Your task to perform on an android device: toggle translation in the chrome app Image 0: 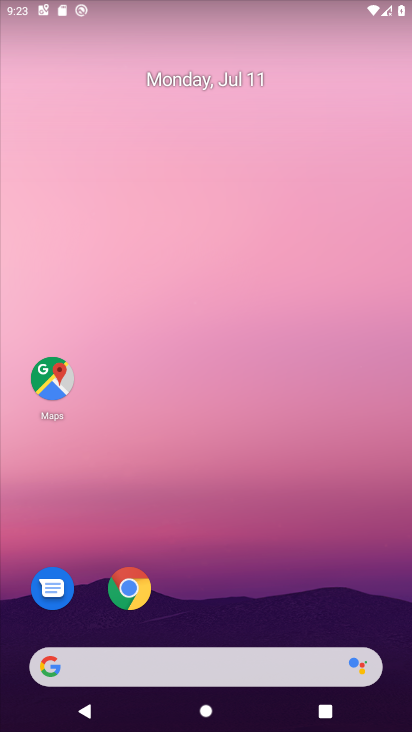
Step 0: drag from (231, 631) to (234, 277)
Your task to perform on an android device: toggle translation in the chrome app Image 1: 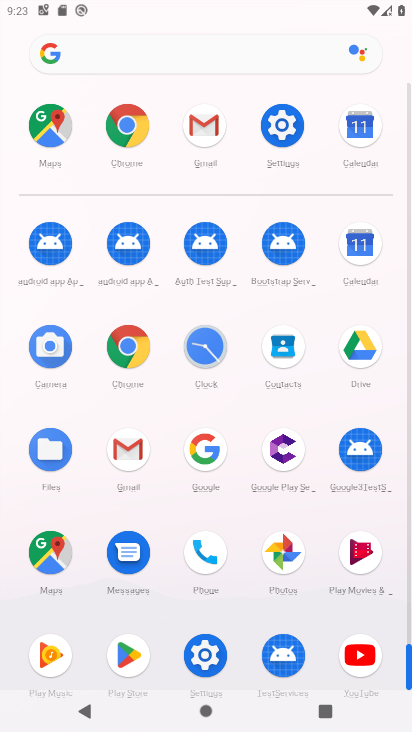
Step 1: click (131, 336)
Your task to perform on an android device: toggle translation in the chrome app Image 2: 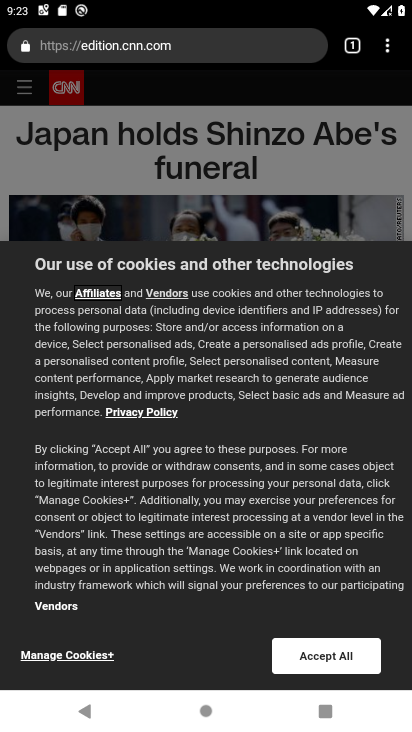
Step 2: click (387, 44)
Your task to perform on an android device: toggle translation in the chrome app Image 3: 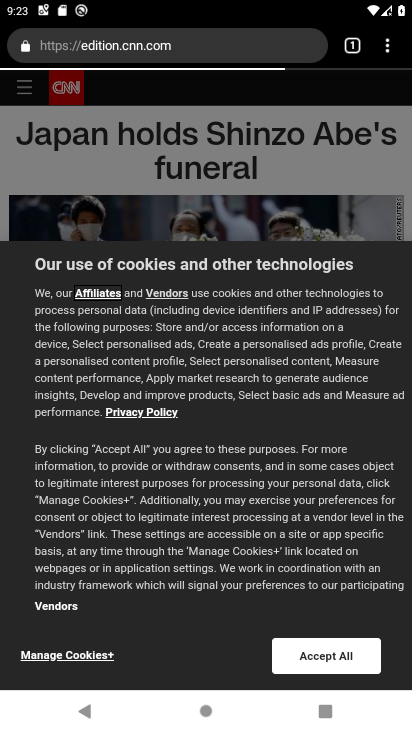
Step 3: click (387, 50)
Your task to perform on an android device: toggle translation in the chrome app Image 4: 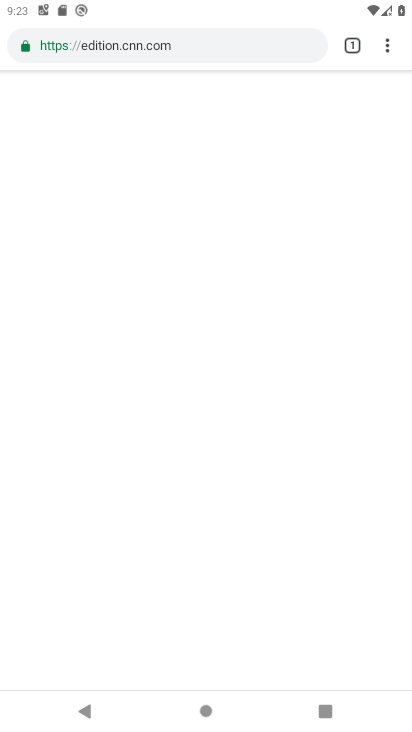
Step 4: click (387, 50)
Your task to perform on an android device: toggle translation in the chrome app Image 5: 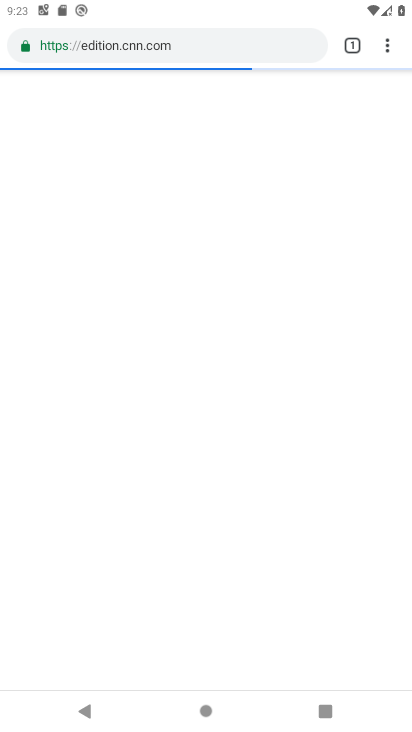
Step 5: click (387, 48)
Your task to perform on an android device: toggle translation in the chrome app Image 6: 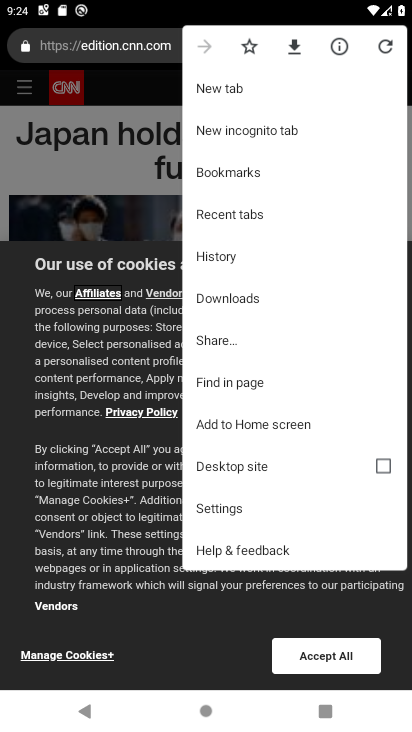
Step 6: click (250, 505)
Your task to perform on an android device: toggle translation in the chrome app Image 7: 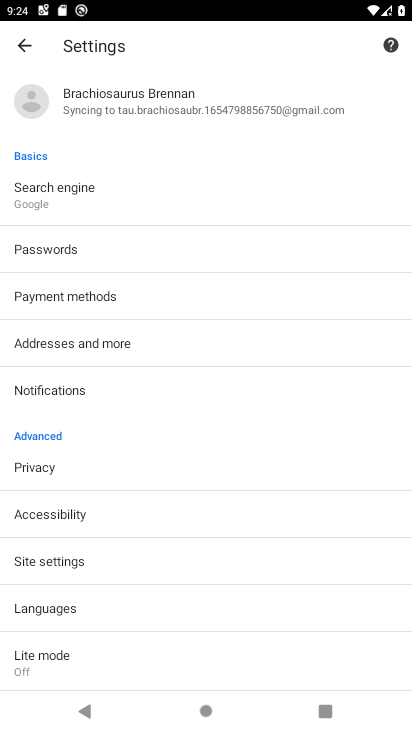
Step 7: click (124, 557)
Your task to perform on an android device: toggle translation in the chrome app Image 8: 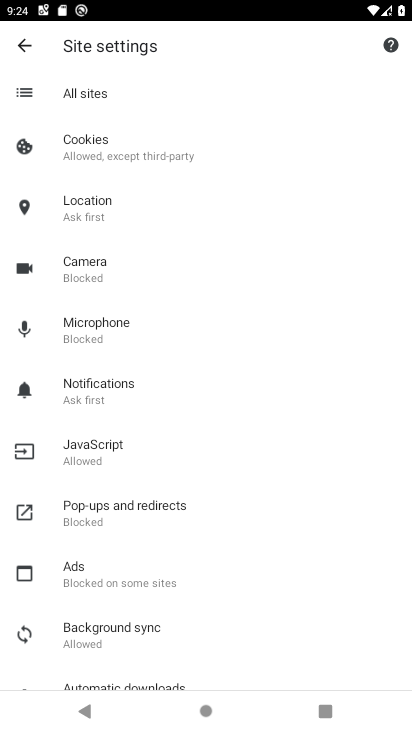
Step 8: click (117, 212)
Your task to perform on an android device: toggle translation in the chrome app Image 9: 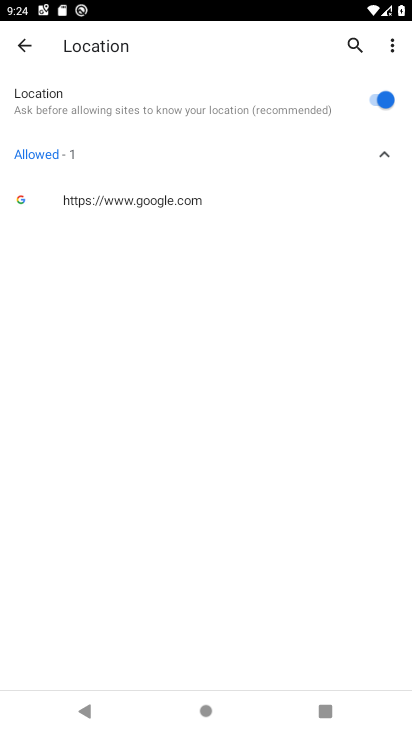
Step 9: click (29, 43)
Your task to perform on an android device: toggle translation in the chrome app Image 10: 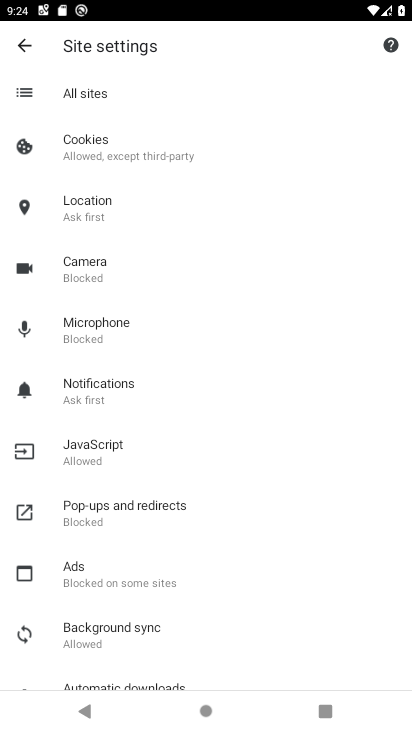
Step 10: click (26, 31)
Your task to perform on an android device: toggle translation in the chrome app Image 11: 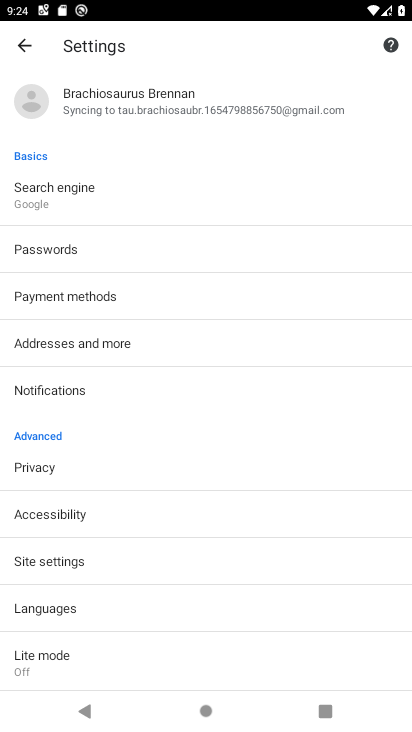
Step 11: click (160, 579)
Your task to perform on an android device: toggle translation in the chrome app Image 12: 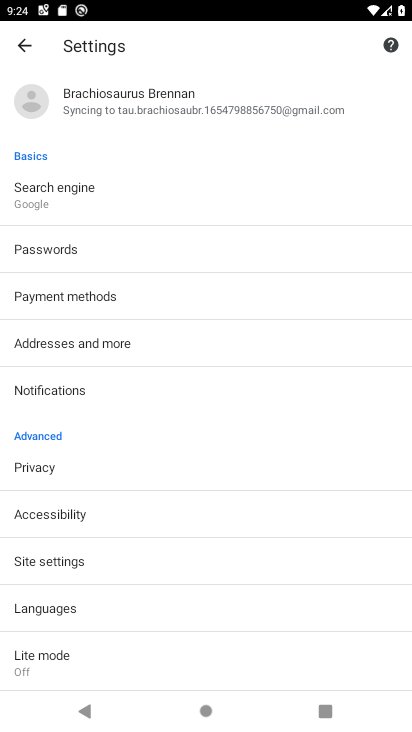
Step 12: drag from (160, 579) to (179, 626)
Your task to perform on an android device: toggle translation in the chrome app Image 13: 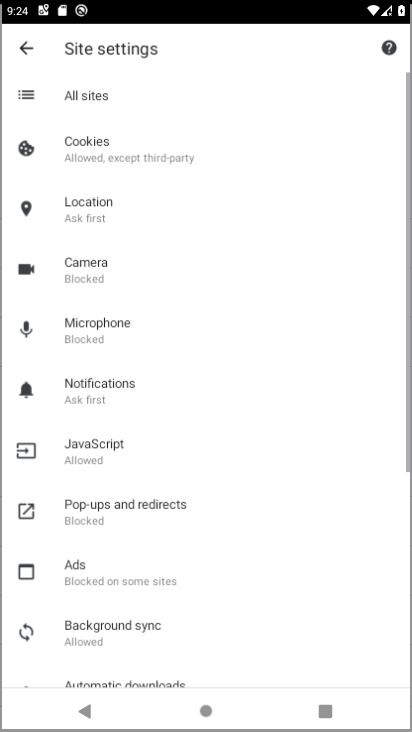
Step 13: click (179, 626)
Your task to perform on an android device: toggle translation in the chrome app Image 14: 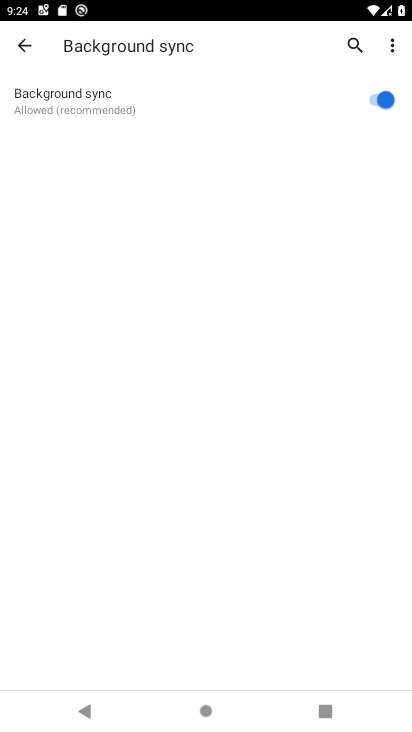
Step 14: click (34, 42)
Your task to perform on an android device: toggle translation in the chrome app Image 15: 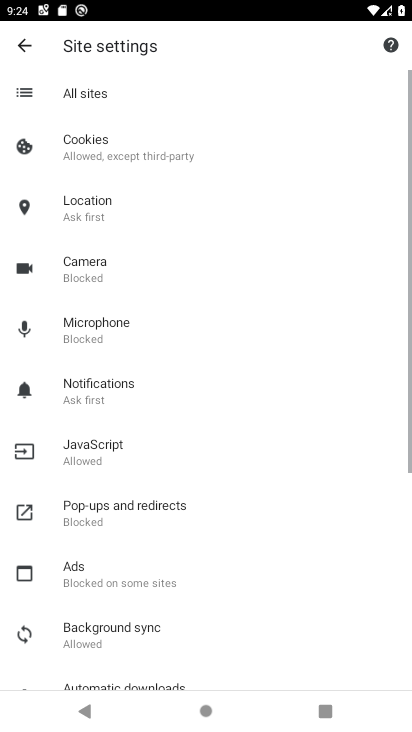
Step 15: click (34, 42)
Your task to perform on an android device: toggle translation in the chrome app Image 16: 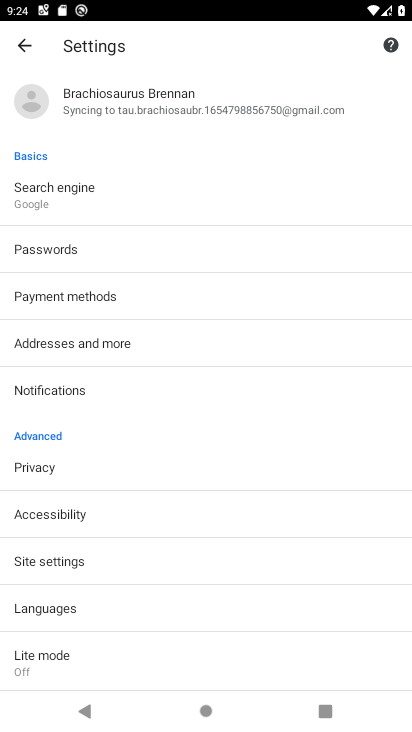
Step 16: click (155, 602)
Your task to perform on an android device: toggle translation in the chrome app Image 17: 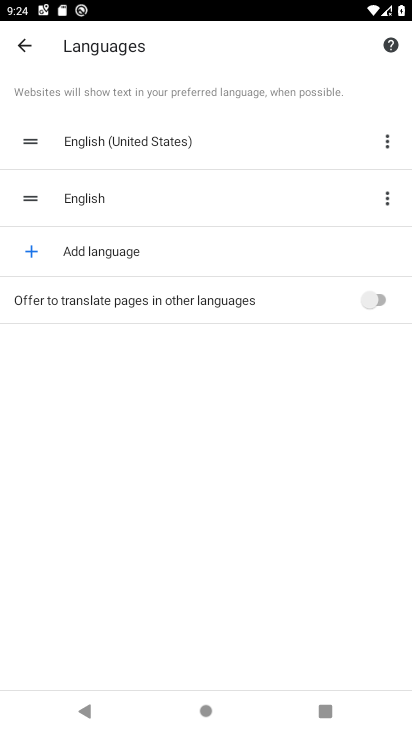
Step 17: click (376, 291)
Your task to perform on an android device: toggle translation in the chrome app Image 18: 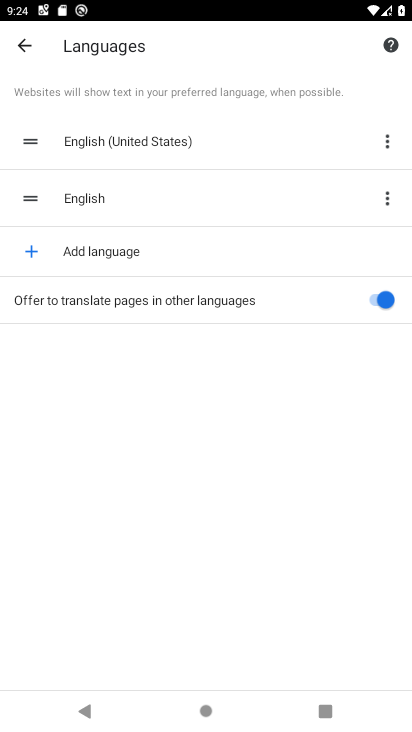
Step 18: task complete